Your task to perform on an android device: remove spam from my inbox in the gmail app Image 0: 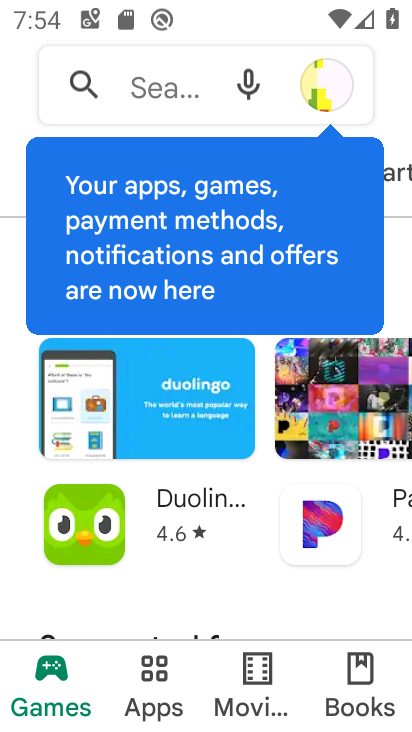
Step 0: press home button
Your task to perform on an android device: remove spam from my inbox in the gmail app Image 1: 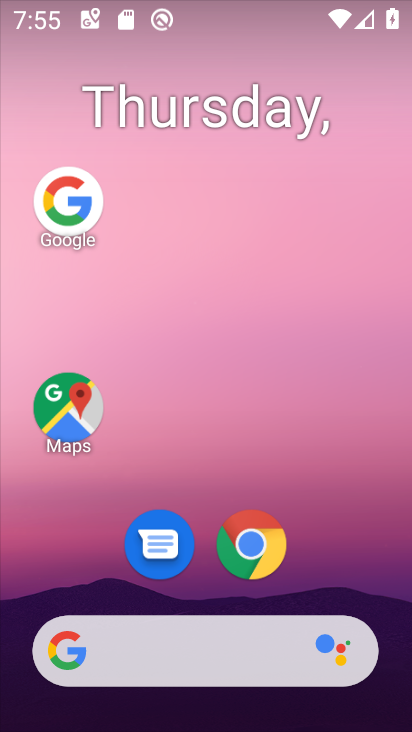
Step 1: drag from (217, 689) to (254, 116)
Your task to perform on an android device: remove spam from my inbox in the gmail app Image 2: 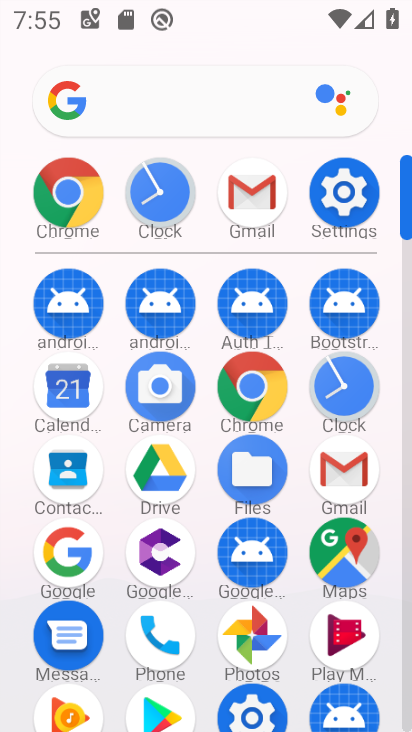
Step 2: click (353, 190)
Your task to perform on an android device: remove spam from my inbox in the gmail app Image 3: 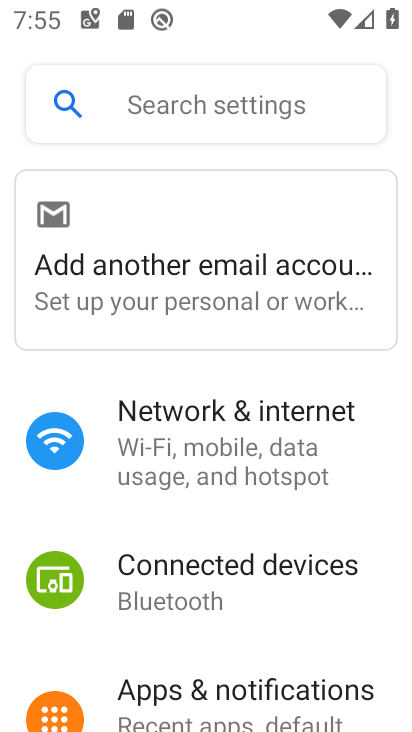
Step 3: press home button
Your task to perform on an android device: remove spam from my inbox in the gmail app Image 4: 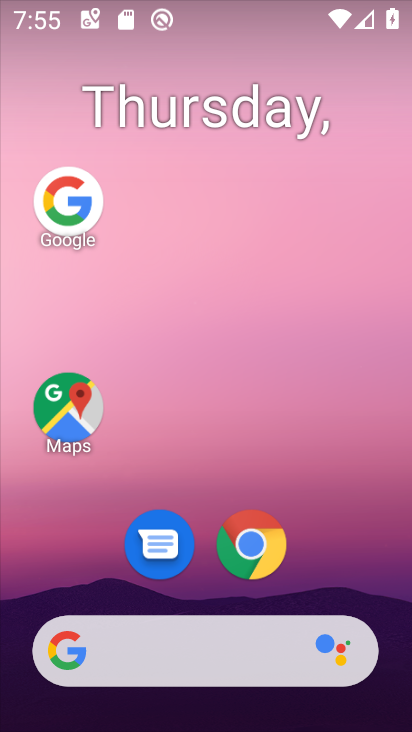
Step 4: drag from (224, 687) to (241, 232)
Your task to perform on an android device: remove spam from my inbox in the gmail app Image 5: 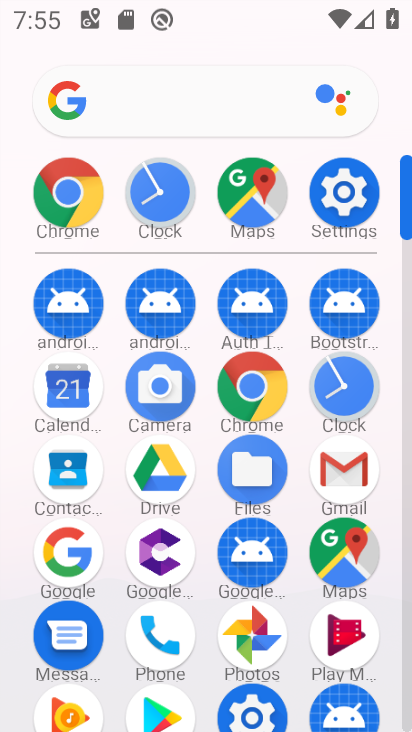
Step 5: click (343, 467)
Your task to perform on an android device: remove spam from my inbox in the gmail app Image 6: 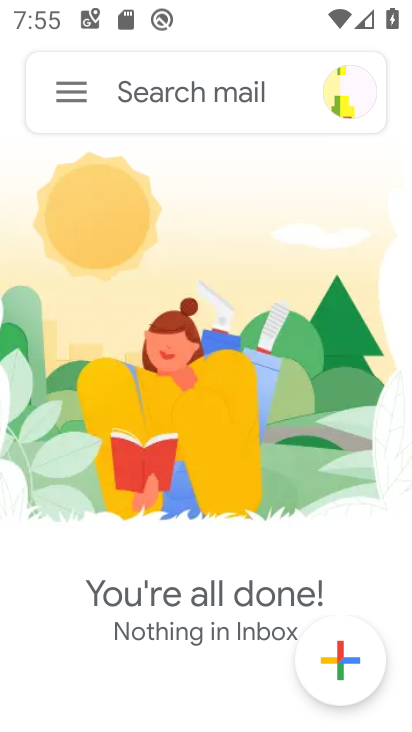
Step 6: click (77, 93)
Your task to perform on an android device: remove spam from my inbox in the gmail app Image 7: 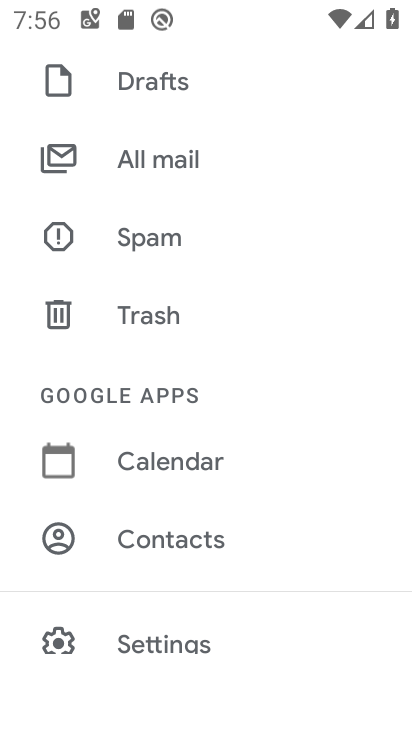
Step 7: click (141, 250)
Your task to perform on an android device: remove spam from my inbox in the gmail app Image 8: 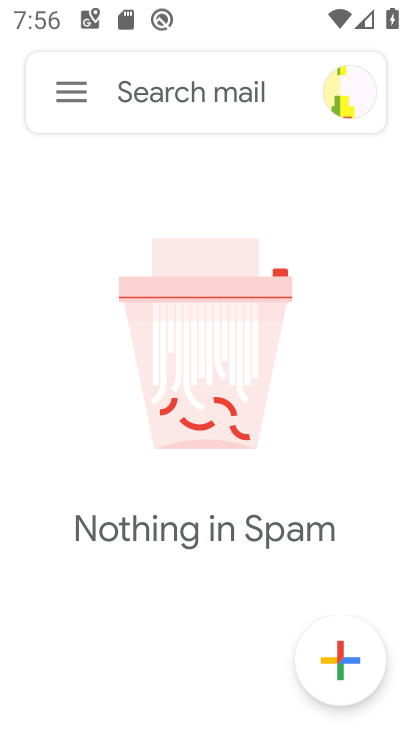
Step 8: task complete